Your task to perform on an android device: Go to Amazon Image 0: 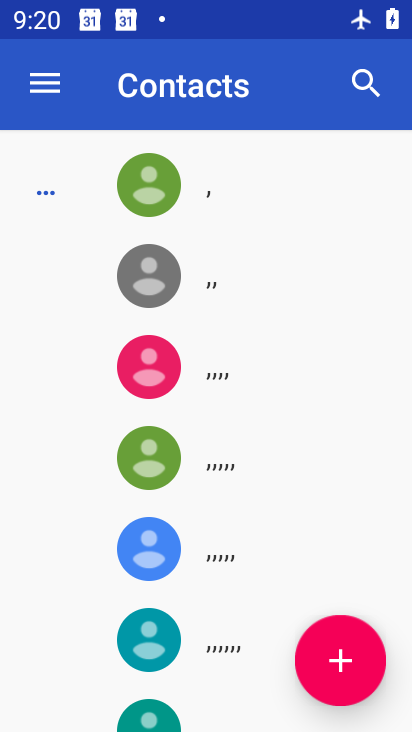
Step 0: press home button
Your task to perform on an android device: Go to Amazon Image 1: 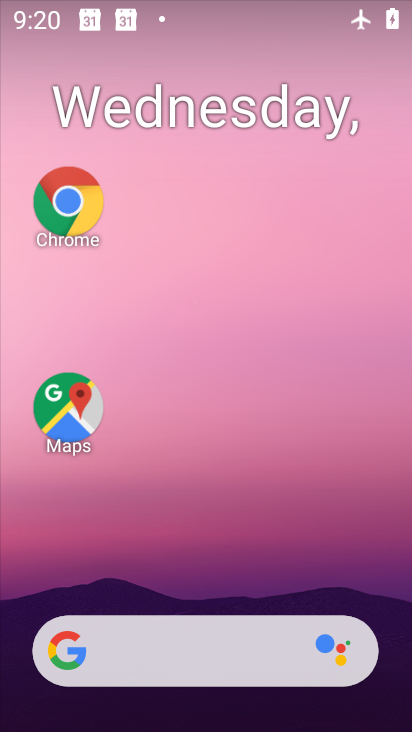
Step 1: click (73, 198)
Your task to perform on an android device: Go to Amazon Image 2: 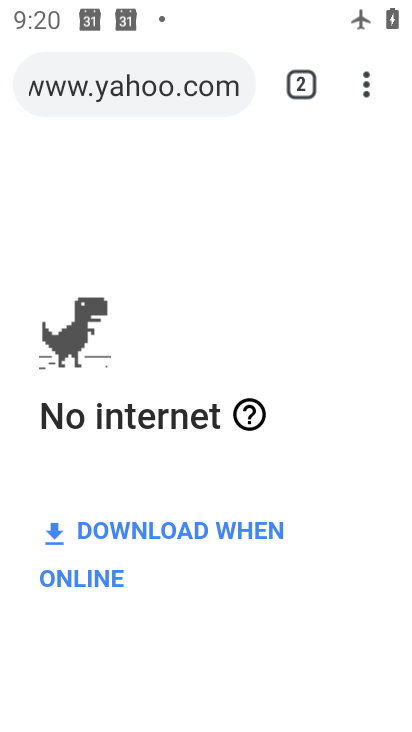
Step 2: click (302, 84)
Your task to perform on an android device: Go to Amazon Image 3: 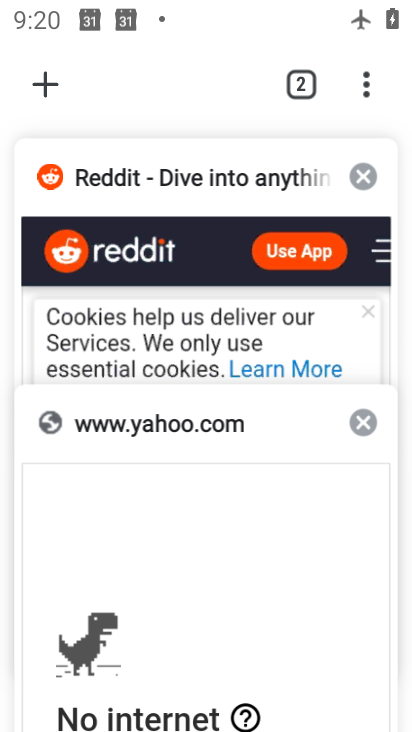
Step 3: task complete